Your task to perform on an android device: find photos in the google photos app Image 0: 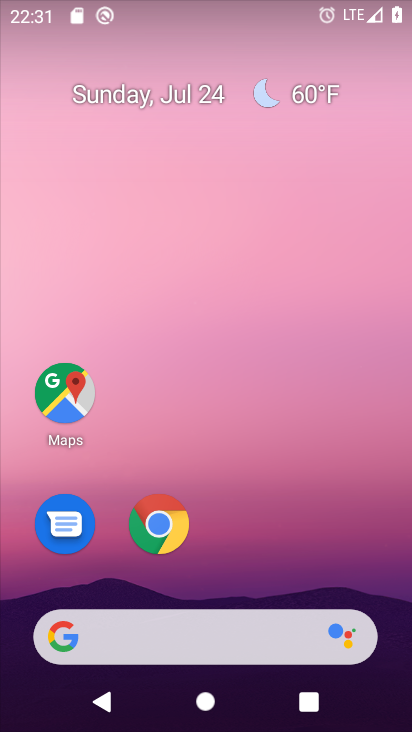
Step 0: drag from (299, 551) to (304, 157)
Your task to perform on an android device: find photos in the google photos app Image 1: 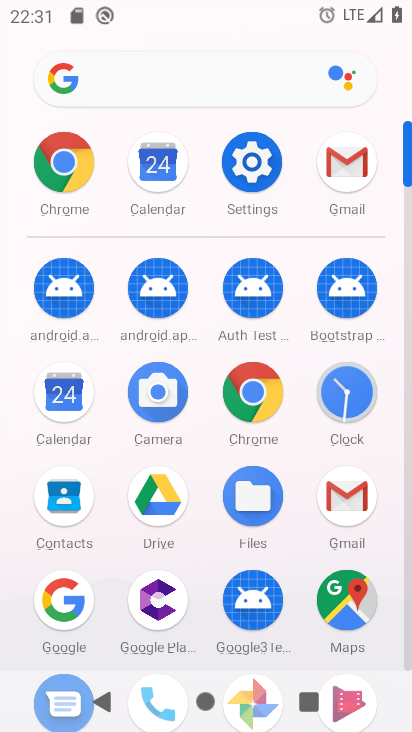
Step 1: drag from (289, 575) to (325, 323)
Your task to perform on an android device: find photos in the google photos app Image 2: 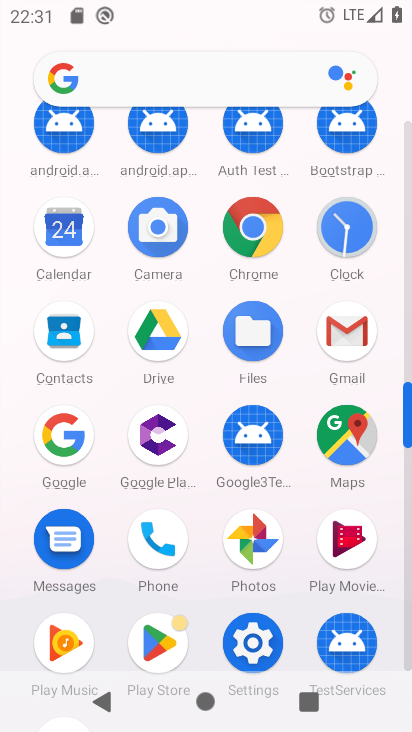
Step 2: click (249, 538)
Your task to perform on an android device: find photos in the google photos app Image 3: 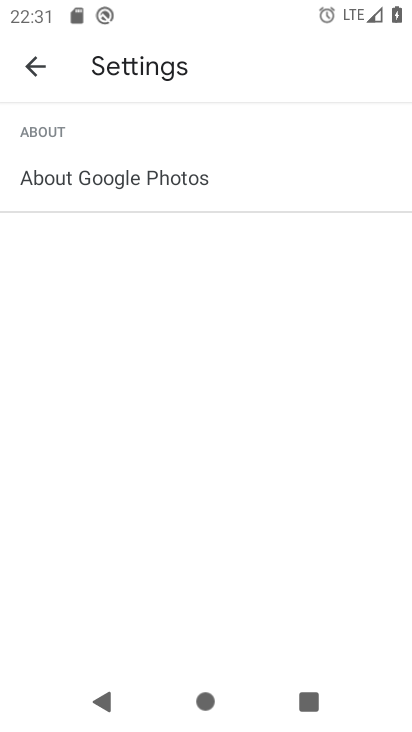
Step 3: click (39, 59)
Your task to perform on an android device: find photos in the google photos app Image 4: 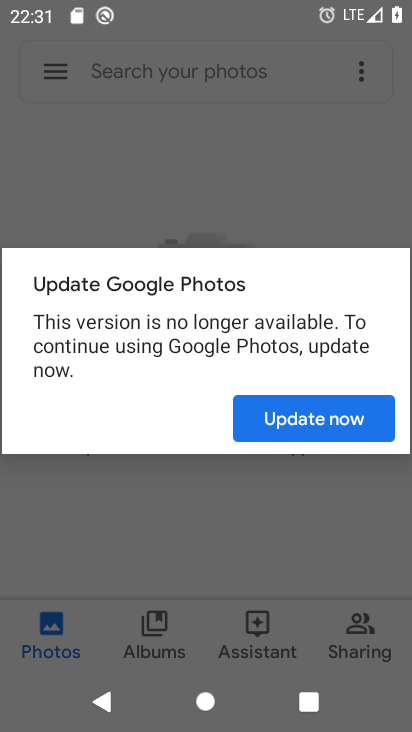
Step 4: click (293, 418)
Your task to perform on an android device: find photos in the google photos app Image 5: 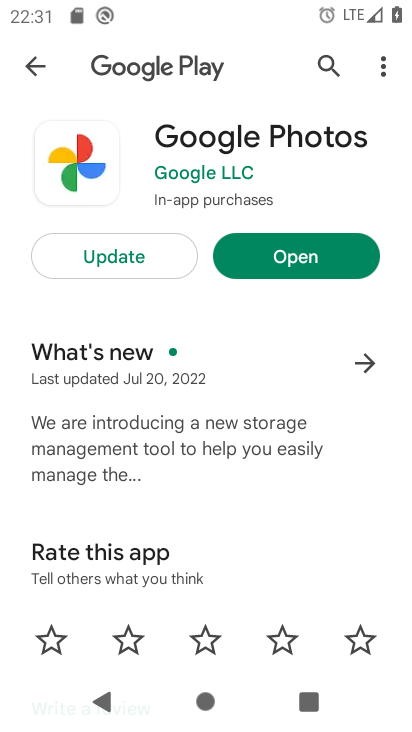
Step 5: click (343, 261)
Your task to perform on an android device: find photos in the google photos app Image 6: 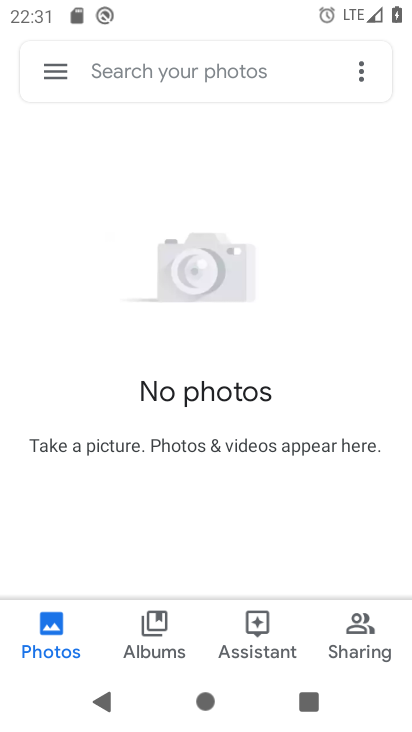
Step 6: task complete